Your task to perform on an android device: toggle show notifications on the lock screen Image 0: 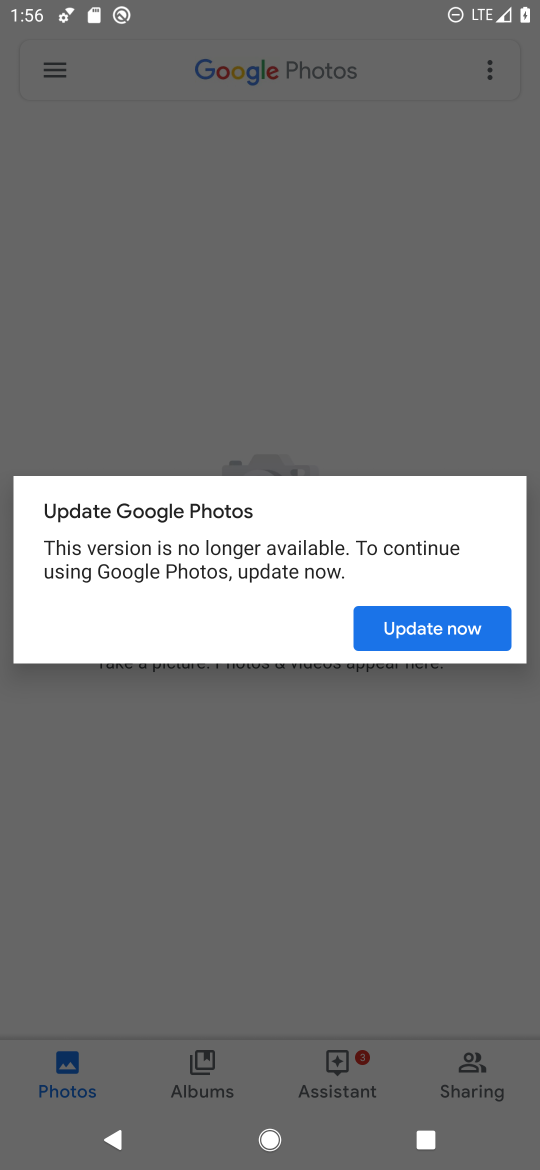
Step 0: press home button
Your task to perform on an android device: toggle show notifications on the lock screen Image 1: 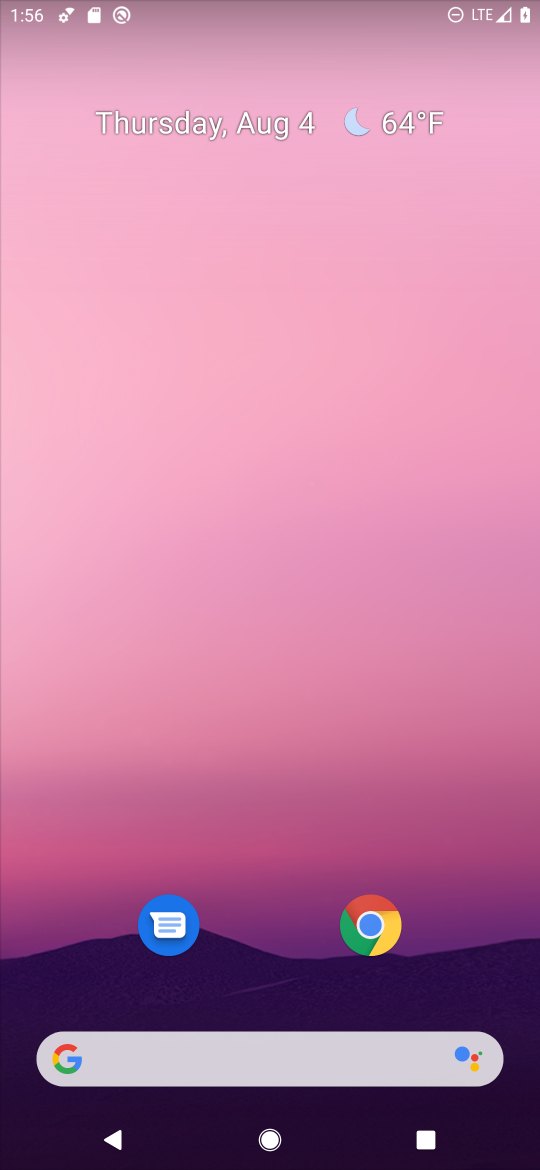
Step 1: drag from (251, 928) to (314, 167)
Your task to perform on an android device: toggle show notifications on the lock screen Image 2: 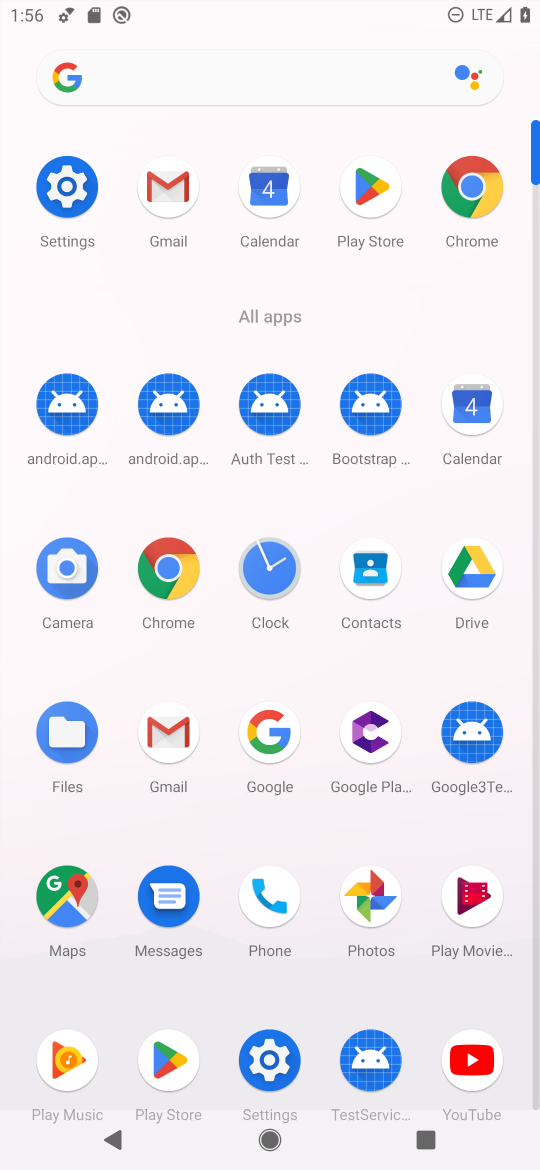
Step 2: click (68, 205)
Your task to perform on an android device: toggle show notifications on the lock screen Image 3: 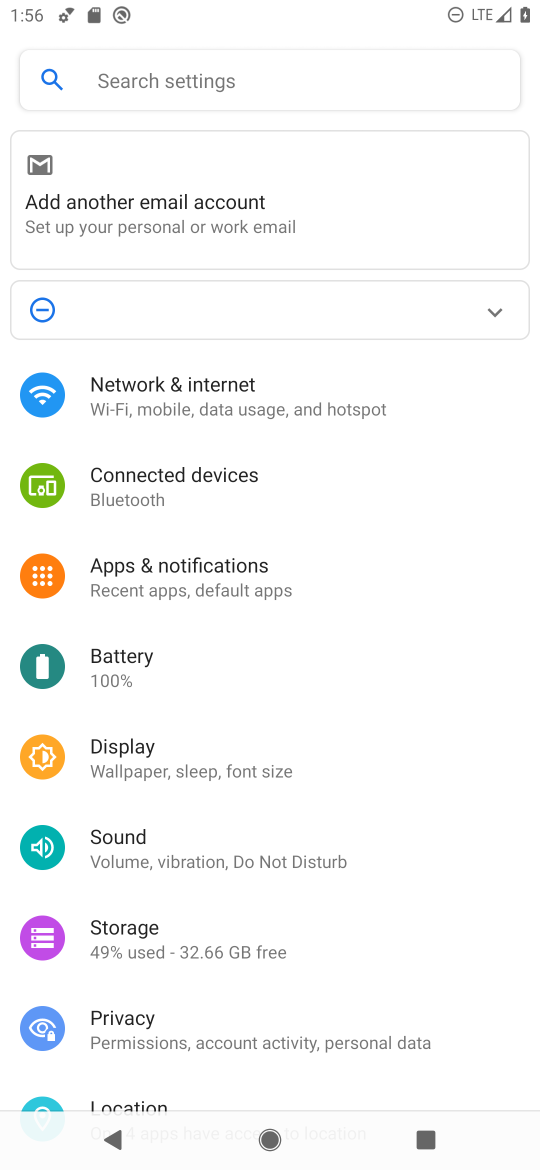
Step 3: click (156, 588)
Your task to perform on an android device: toggle show notifications on the lock screen Image 4: 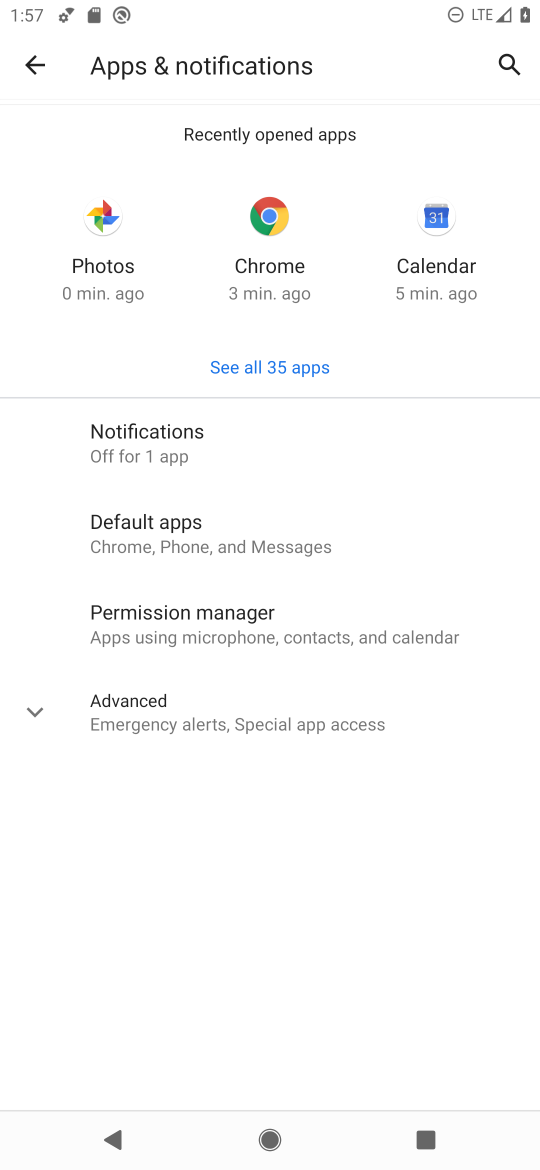
Step 4: task complete